Your task to perform on an android device: check out phone information Image 0: 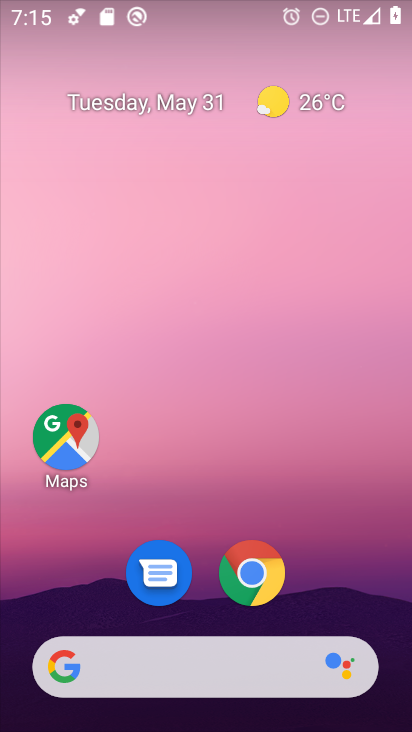
Step 0: drag from (393, 660) to (308, 16)
Your task to perform on an android device: check out phone information Image 1: 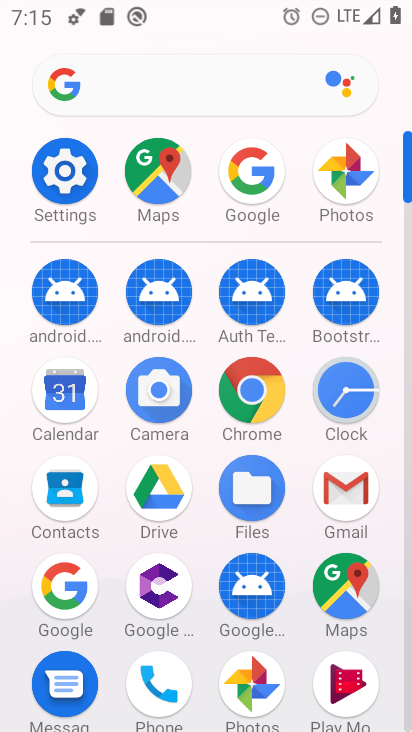
Step 1: click (67, 191)
Your task to perform on an android device: check out phone information Image 2: 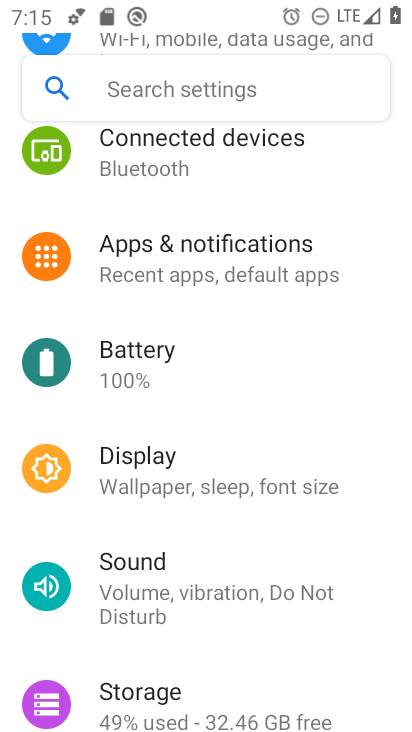
Step 2: drag from (149, 655) to (187, 44)
Your task to perform on an android device: check out phone information Image 3: 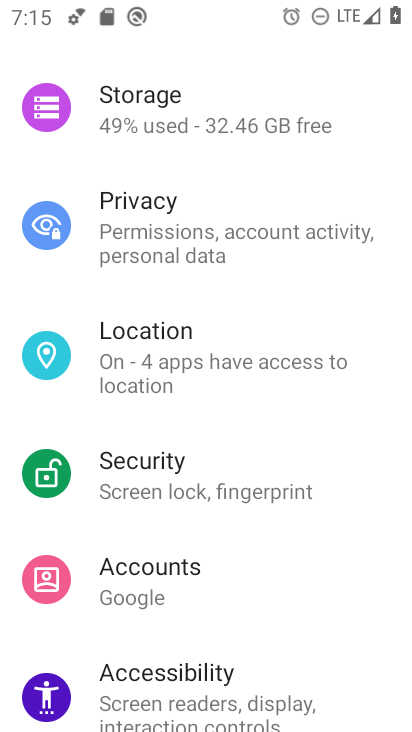
Step 3: drag from (174, 651) to (264, 91)
Your task to perform on an android device: check out phone information Image 4: 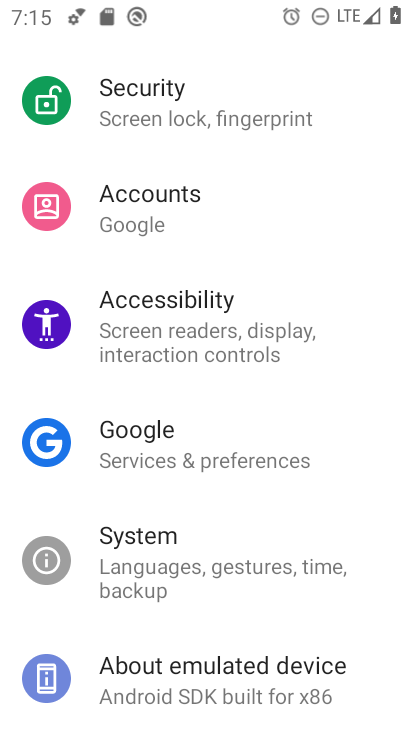
Step 4: click (280, 678)
Your task to perform on an android device: check out phone information Image 5: 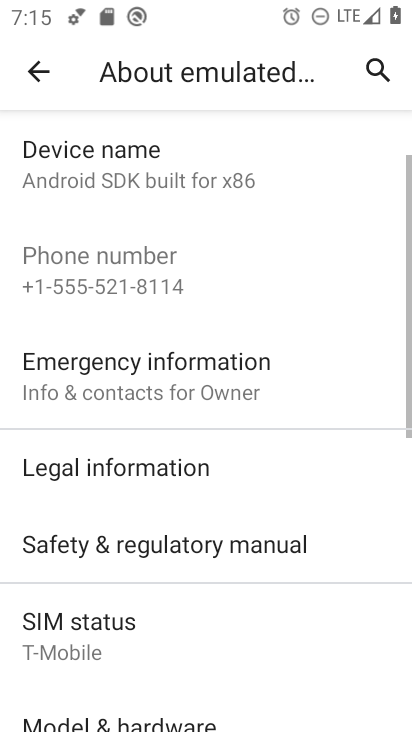
Step 5: task complete